Your task to perform on an android device: Open the web browser Image 0: 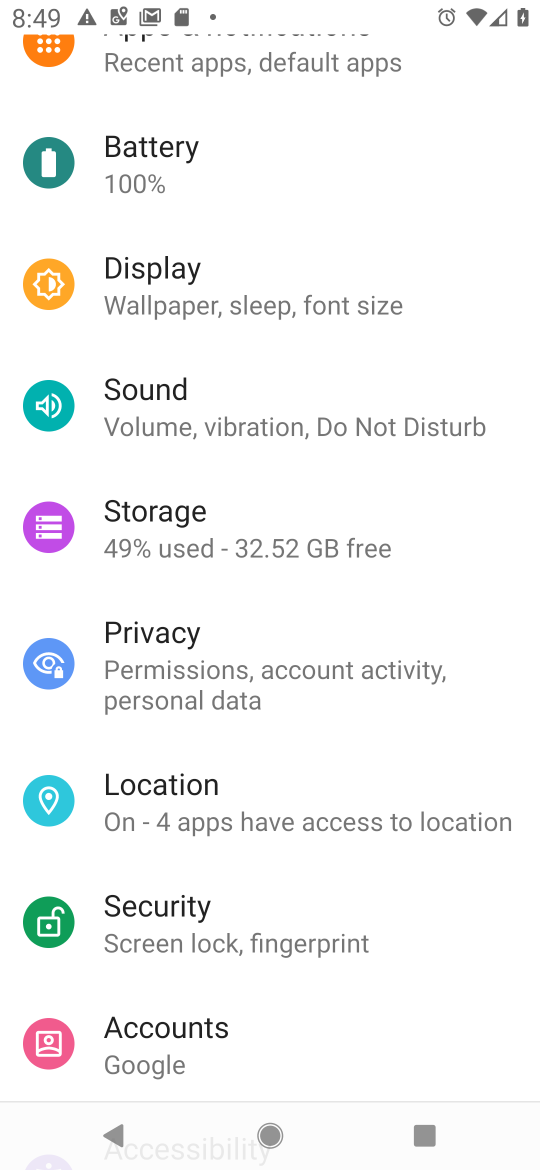
Step 0: press home button
Your task to perform on an android device: Open the web browser Image 1: 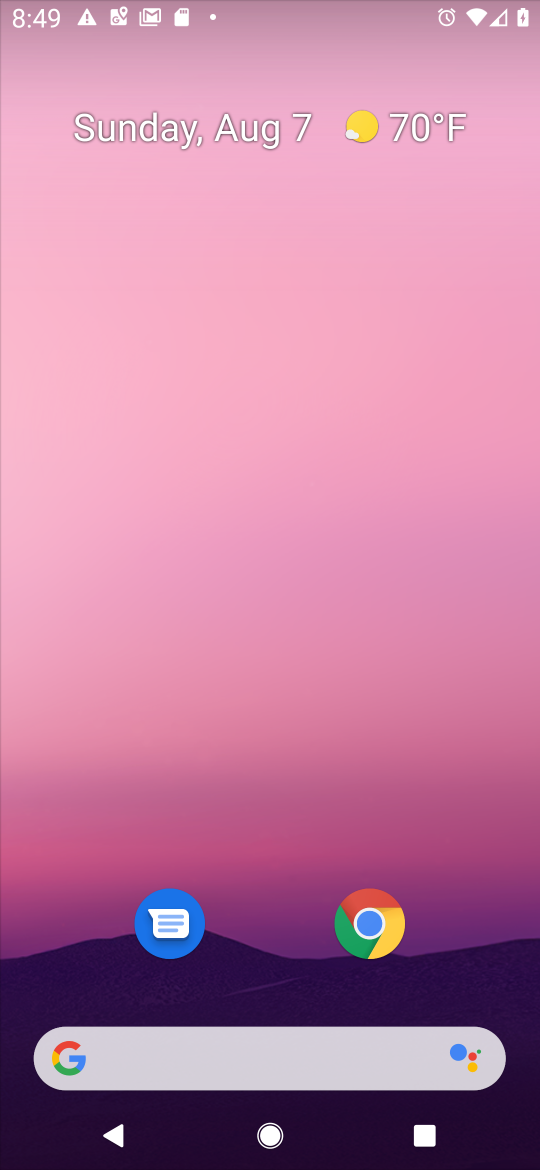
Step 1: drag from (513, 993) to (319, 22)
Your task to perform on an android device: Open the web browser Image 2: 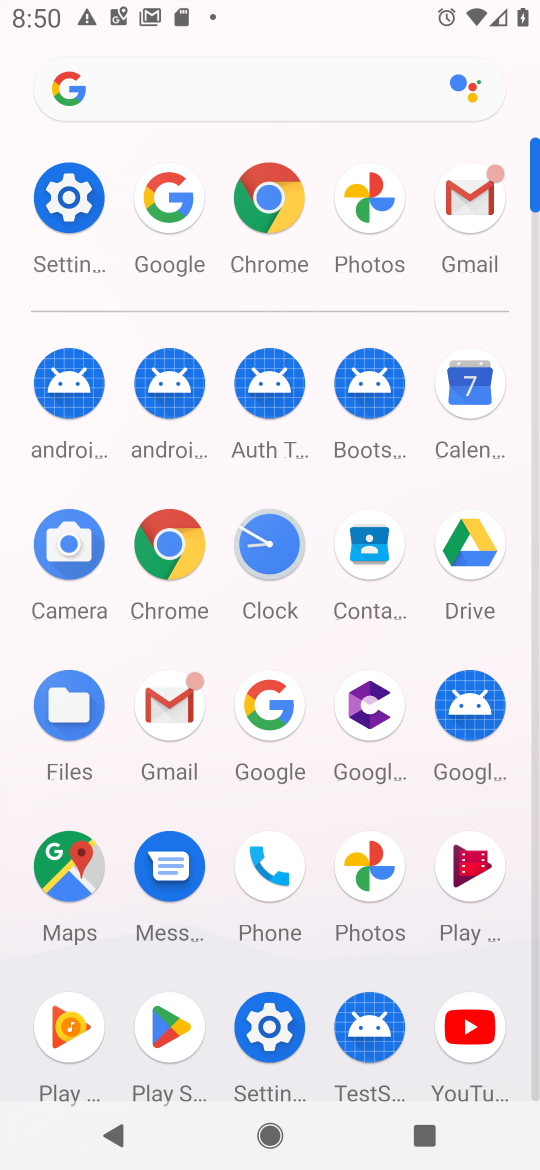
Step 2: click (247, 715)
Your task to perform on an android device: Open the web browser Image 3: 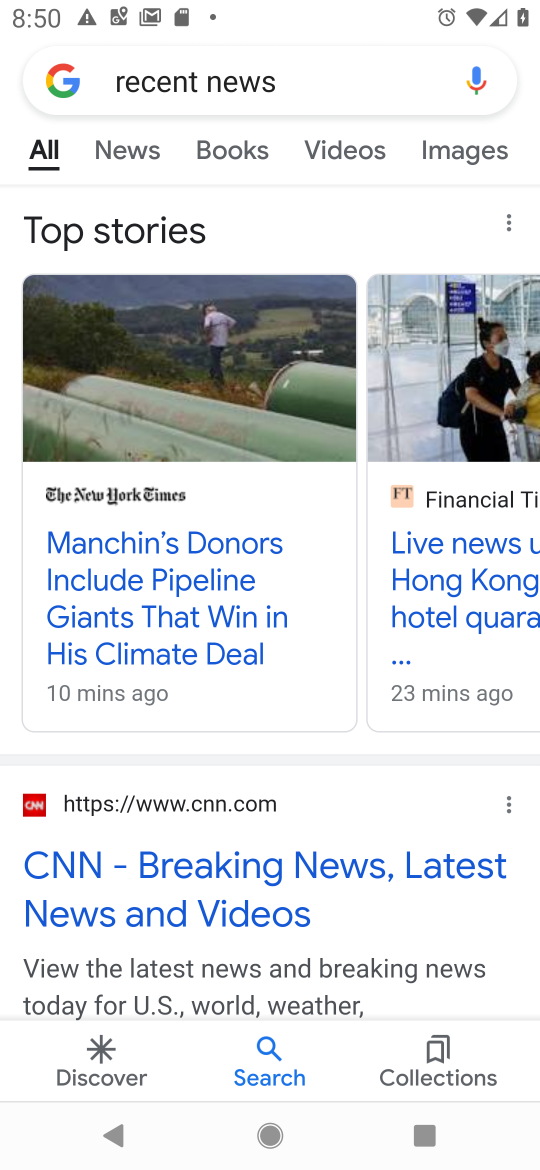
Step 3: press back button
Your task to perform on an android device: Open the web browser Image 4: 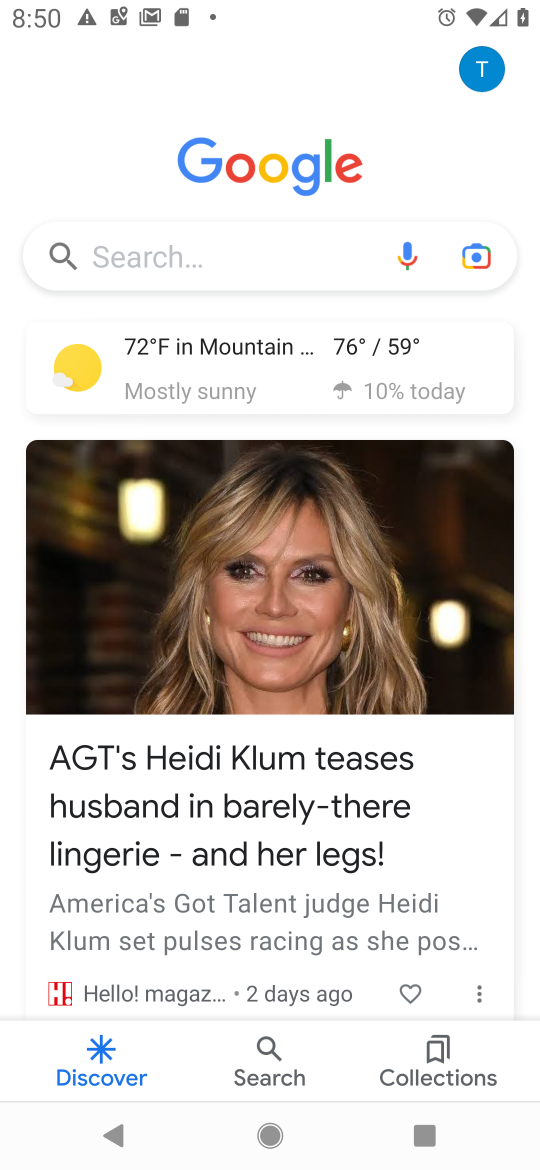
Step 4: click (137, 258)
Your task to perform on an android device: Open the web browser Image 5: 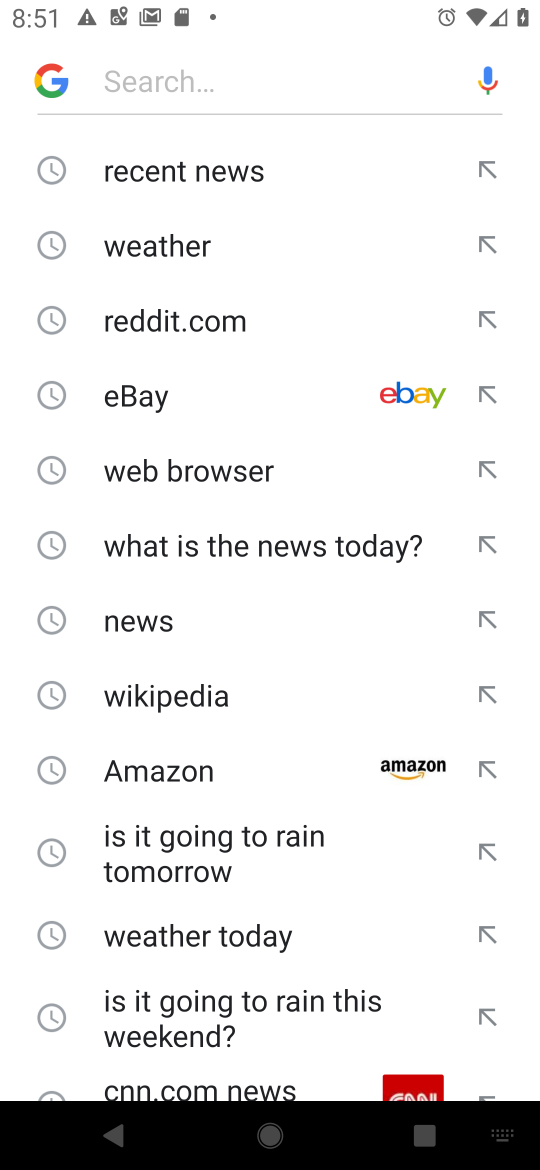
Step 5: type "web browser"
Your task to perform on an android device: Open the web browser Image 6: 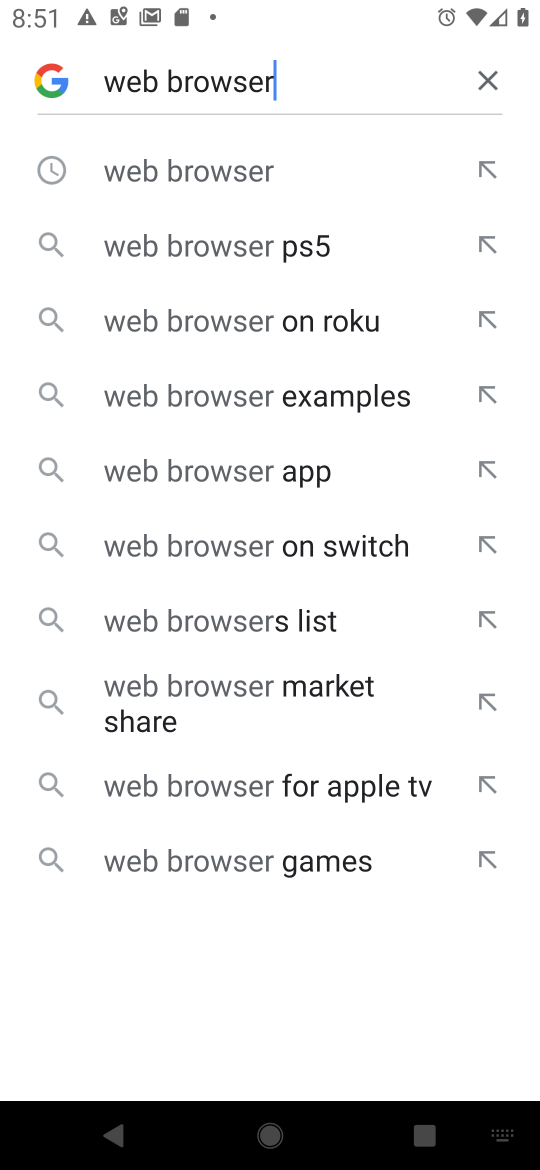
Step 6: click (188, 176)
Your task to perform on an android device: Open the web browser Image 7: 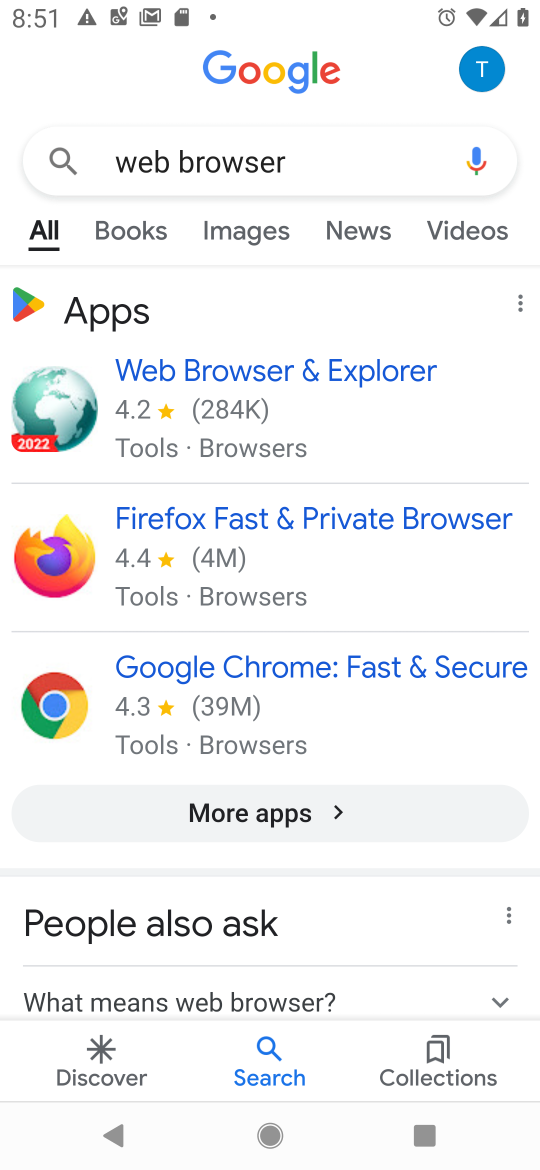
Step 7: task complete